Your task to perform on an android device: turn on the 12-hour format for clock Image 0: 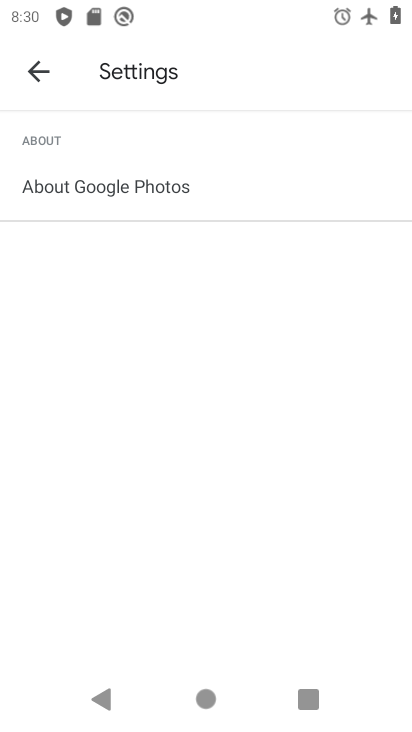
Step 0: press home button
Your task to perform on an android device: turn on the 12-hour format for clock Image 1: 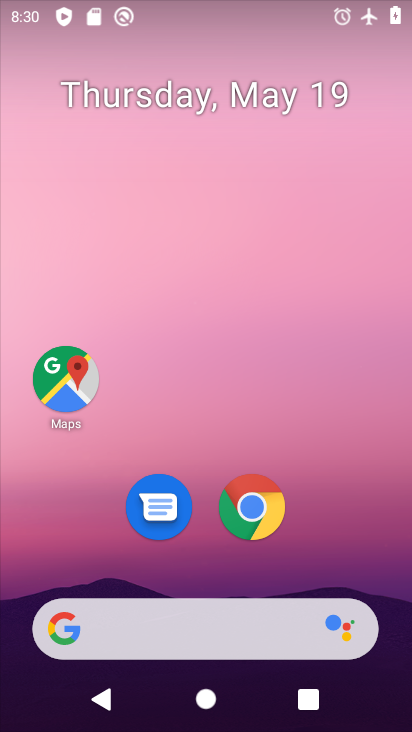
Step 1: drag from (244, 730) to (236, 173)
Your task to perform on an android device: turn on the 12-hour format for clock Image 2: 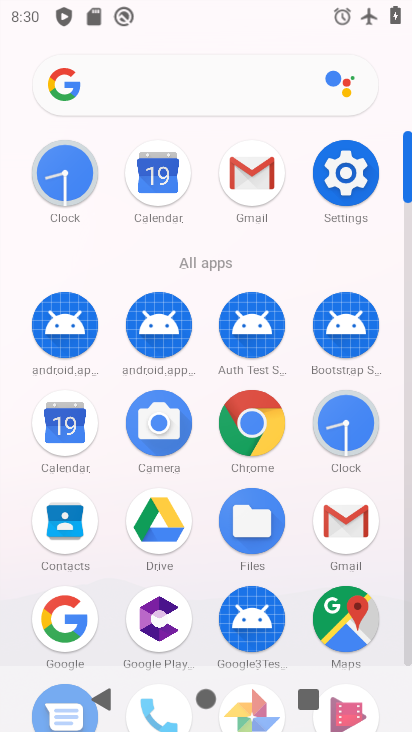
Step 2: click (353, 423)
Your task to perform on an android device: turn on the 12-hour format for clock Image 3: 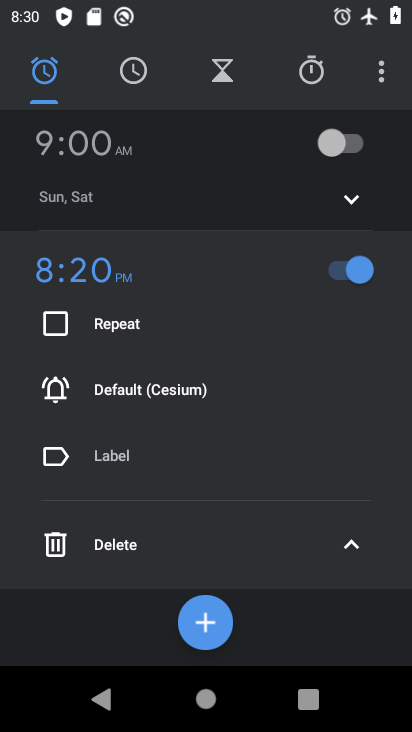
Step 3: click (385, 77)
Your task to perform on an android device: turn on the 12-hour format for clock Image 4: 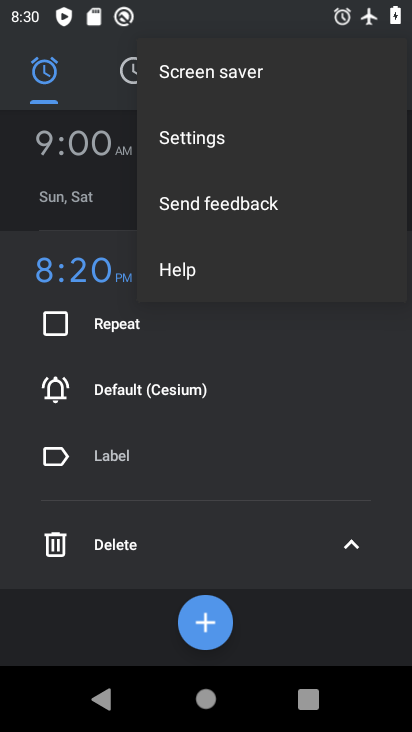
Step 4: click (195, 138)
Your task to perform on an android device: turn on the 12-hour format for clock Image 5: 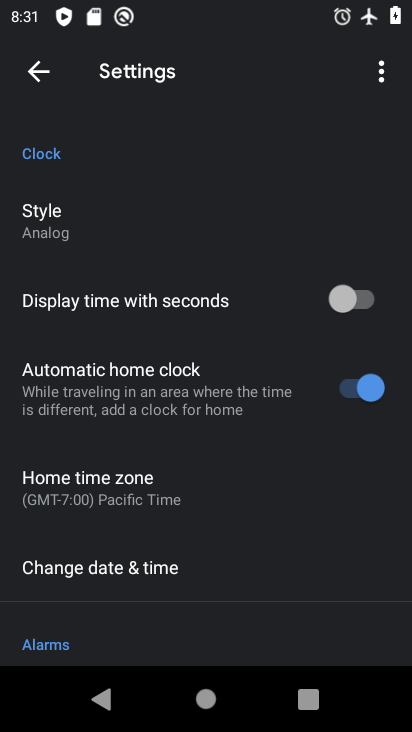
Step 5: click (93, 566)
Your task to perform on an android device: turn on the 12-hour format for clock Image 6: 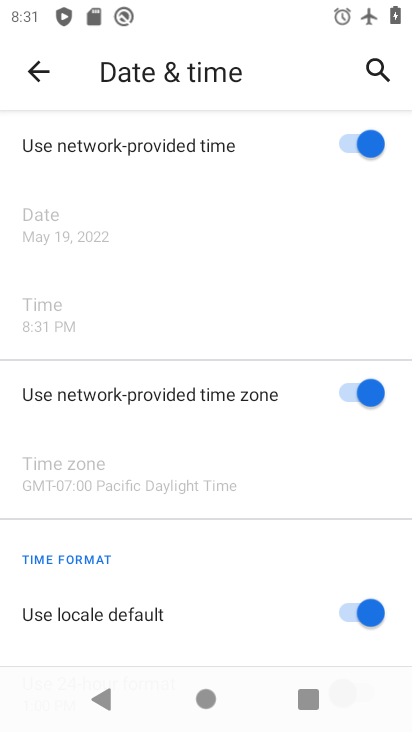
Step 6: task complete